Your task to perform on an android device: What's the weather going to be tomorrow? Image 0: 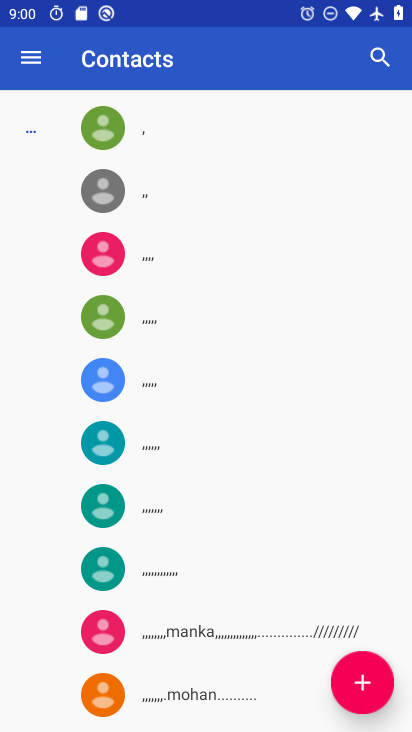
Step 0: press home button
Your task to perform on an android device: What's the weather going to be tomorrow? Image 1: 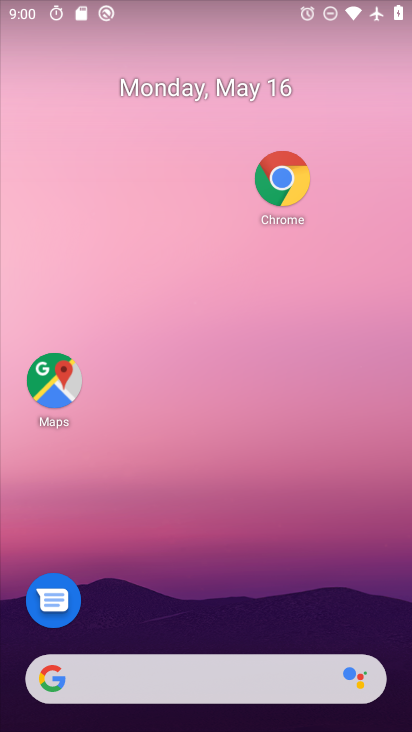
Step 1: click (59, 688)
Your task to perform on an android device: What's the weather going to be tomorrow? Image 2: 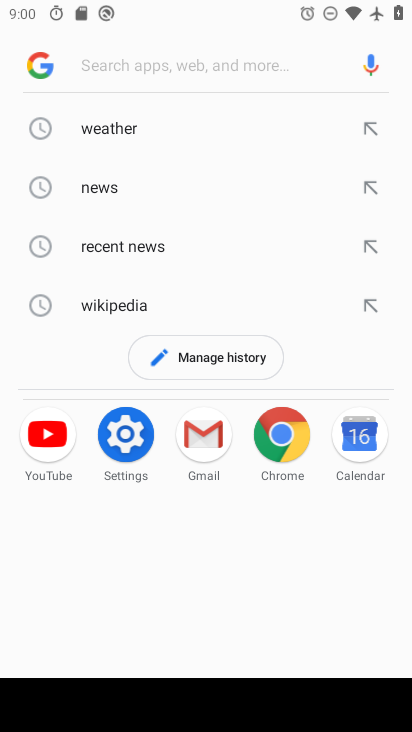
Step 2: click (127, 113)
Your task to perform on an android device: What's the weather going to be tomorrow? Image 3: 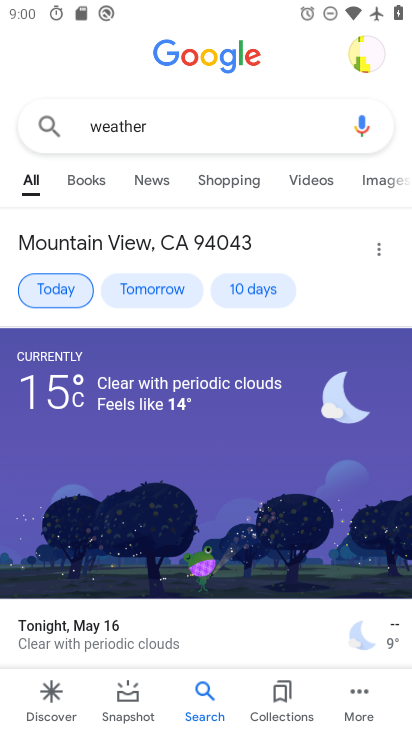
Step 3: click (150, 284)
Your task to perform on an android device: What's the weather going to be tomorrow? Image 4: 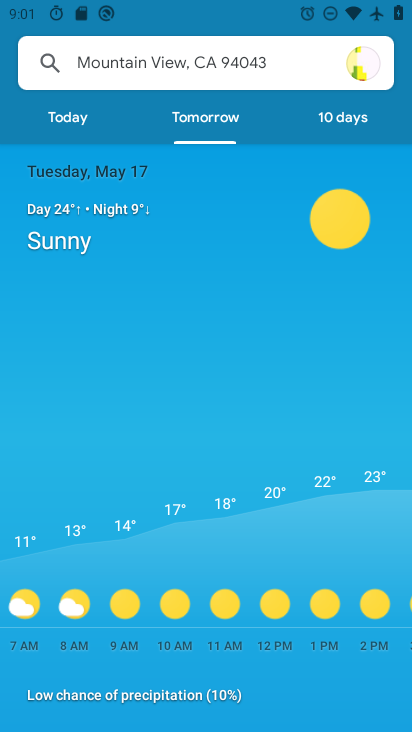
Step 4: task complete